Your task to perform on an android device: turn off airplane mode Image 0: 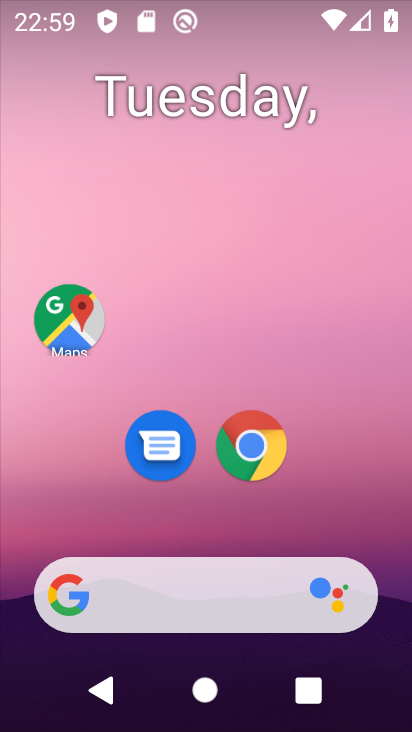
Step 0: drag from (304, 502) to (312, 0)
Your task to perform on an android device: turn off airplane mode Image 1: 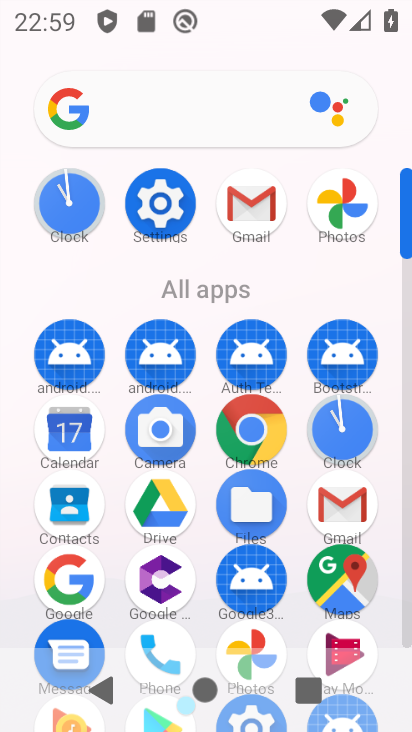
Step 1: click (161, 205)
Your task to perform on an android device: turn off airplane mode Image 2: 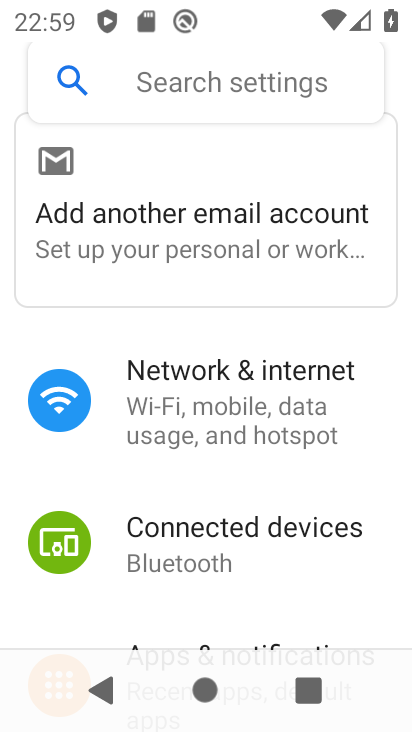
Step 2: click (199, 423)
Your task to perform on an android device: turn off airplane mode Image 3: 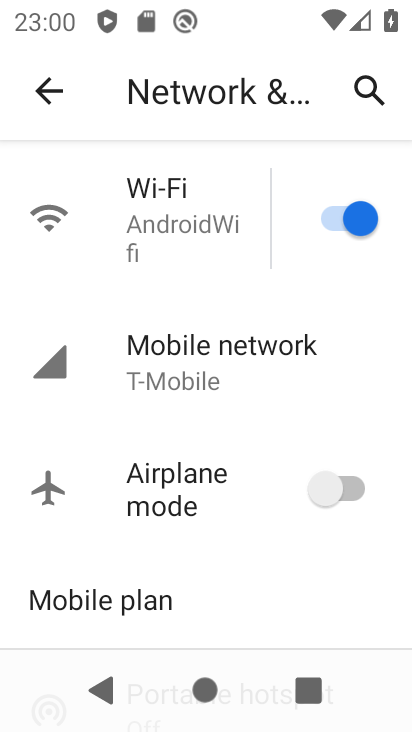
Step 3: task complete